Your task to perform on an android device: turn off data saver in the chrome app Image 0: 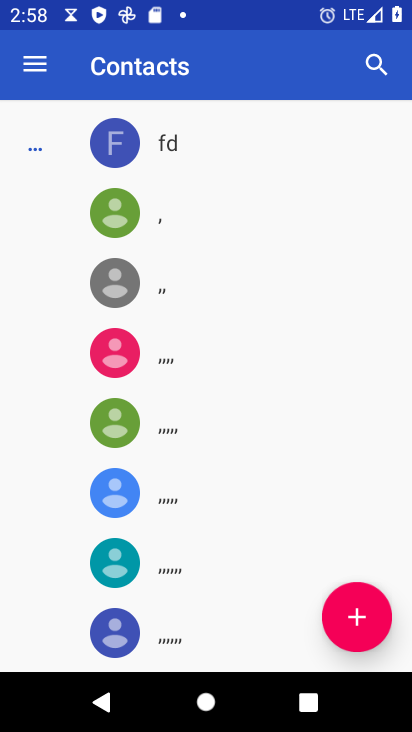
Step 0: press home button
Your task to perform on an android device: turn off data saver in the chrome app Image 1: 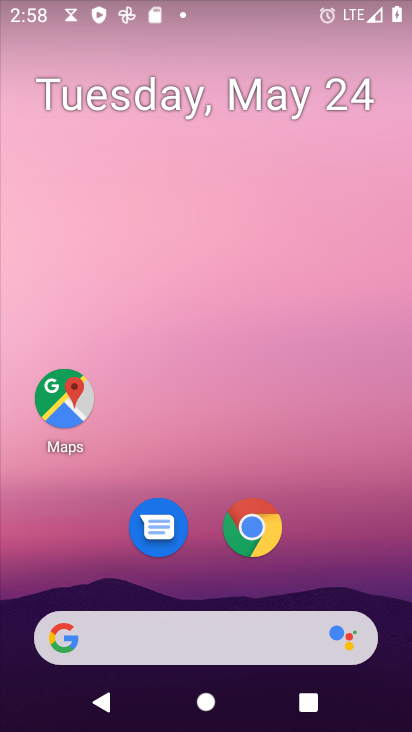
Step 1: drag from (177, 640) to (277, 91)
Your task to perform on an android device: turn off data saver in the chrome app Image 2: 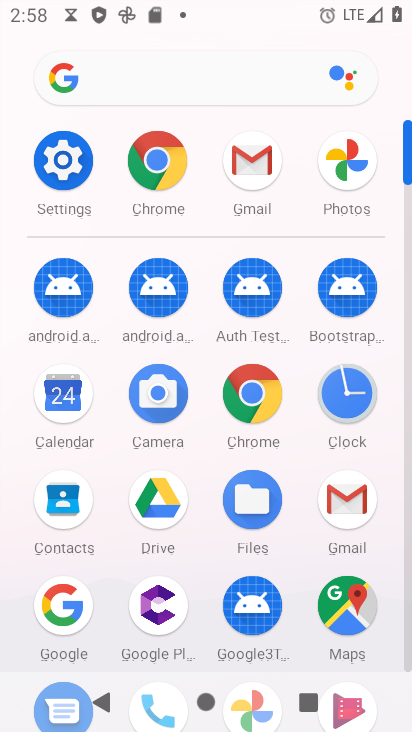
Step 2: click (259, 394)
Your task to perform on an android device: turn off data saver in the chrome app Image 3: 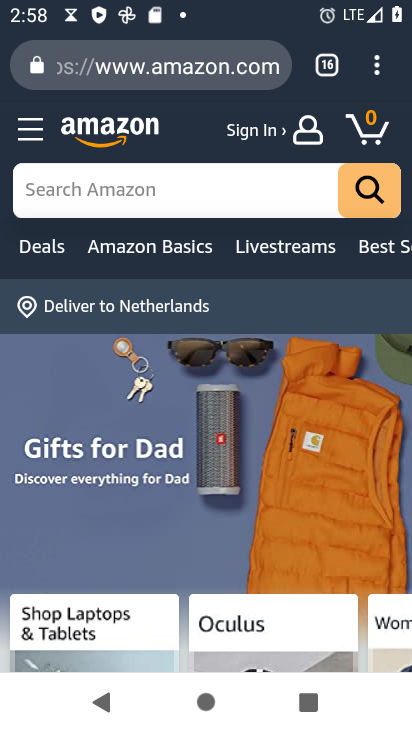
Step 3: drag from (380, 73) to (222, 594)
Your task to perform on an android device: turn off data saver in the chrome app Image 4: 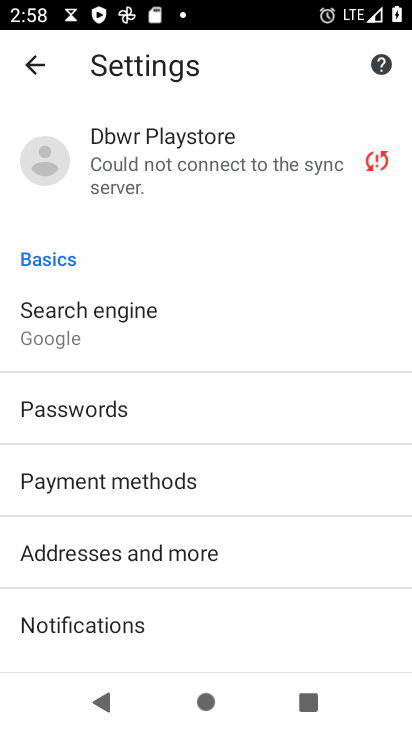
Step 4: drag from (220, 618) to (279, 89)
Your task to perform on an android device: turn off data saver in the chrome app Image 5: 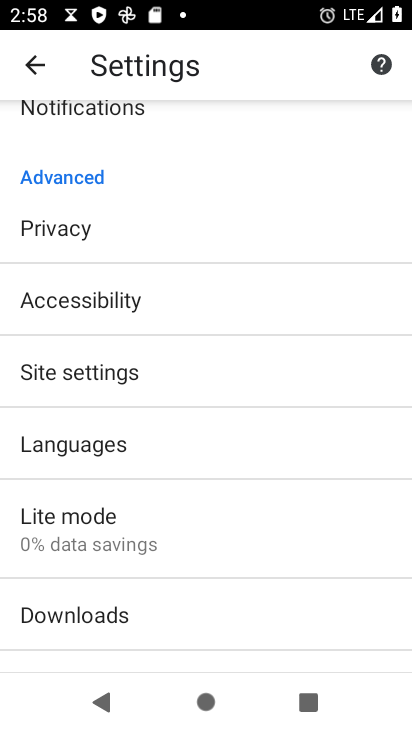
Step 5: click (89, 532)
Your task to perform on an android device: turn off data saver in the chrome app Image 6: 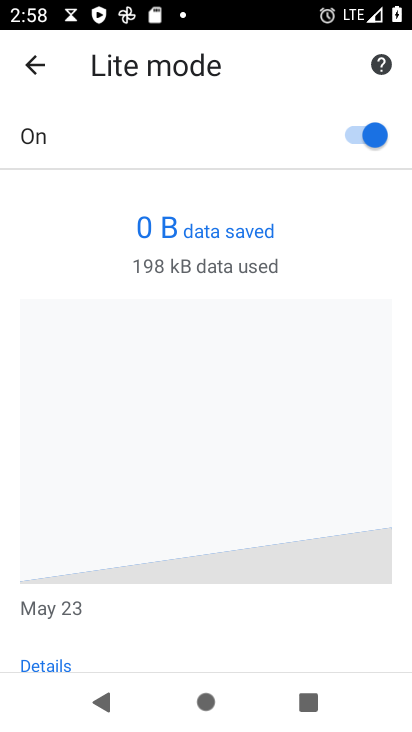
Step 6: click (347, 135)
Your task to perform on an android device: turn off data saver in the chrome app Image 7: 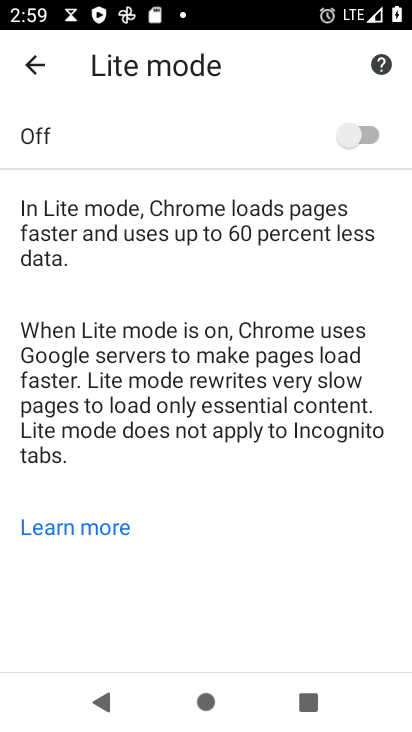
Step 7: task complete